Your task to perform on an android device: toggle location history Image 0: 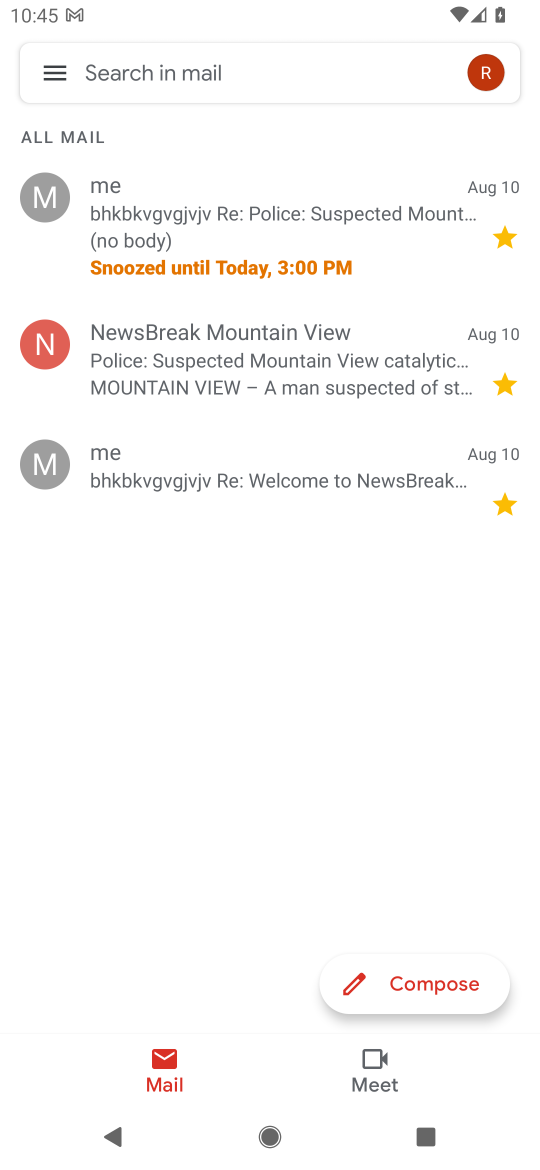
Step 0: press home button
Your task to perform on an android device: toggle location history Image 1: 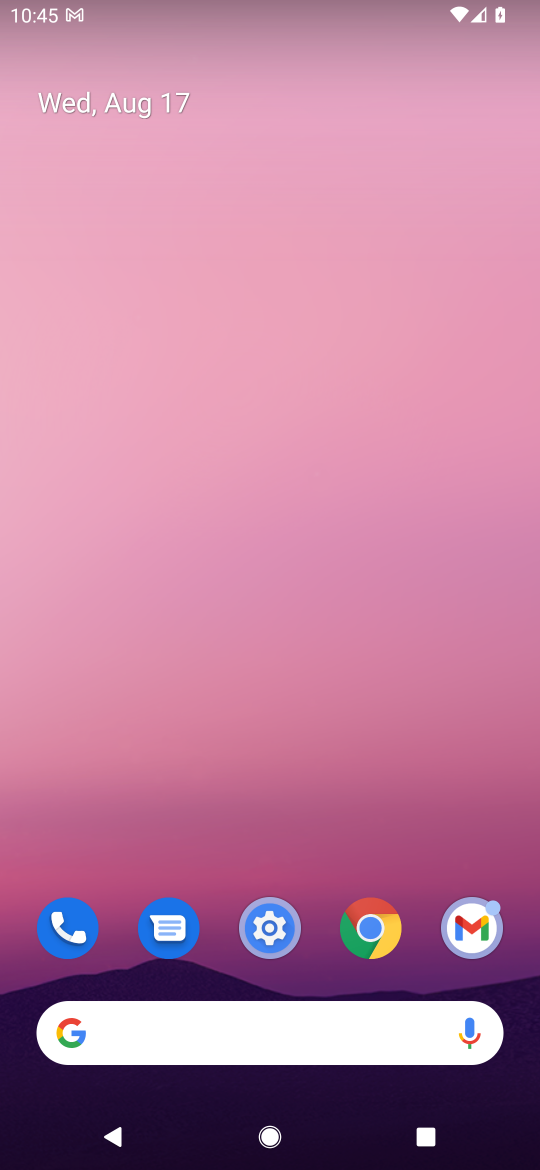
Step 1: drag from (463, 801) to (329, 195)
Your task to perform on an android device: toggle location history Image 2: 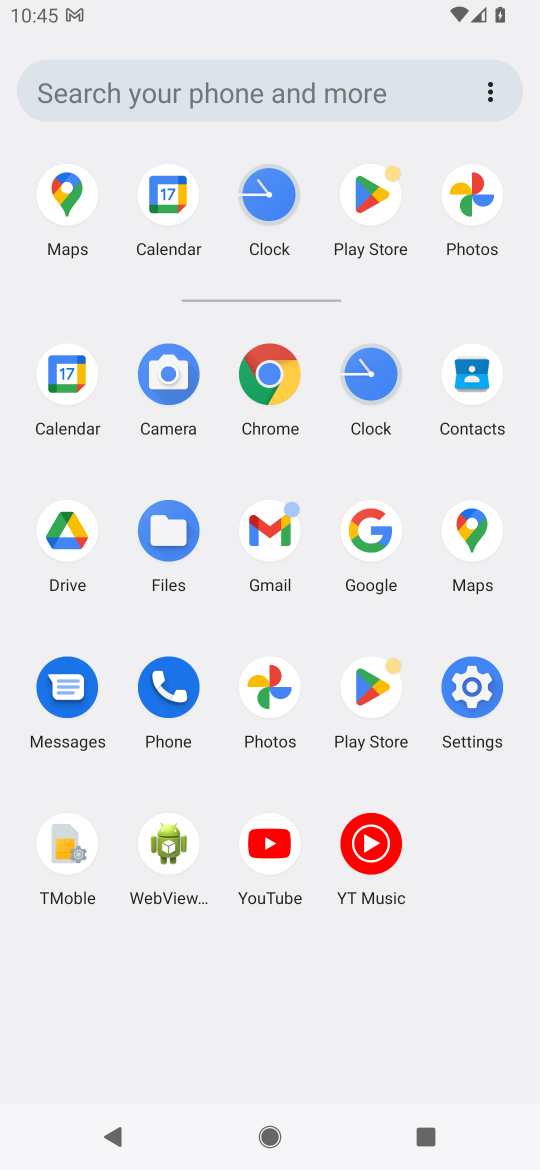
Step 2: click (459, 703)
Your task to perform on an android device: toggle location history Image 3: 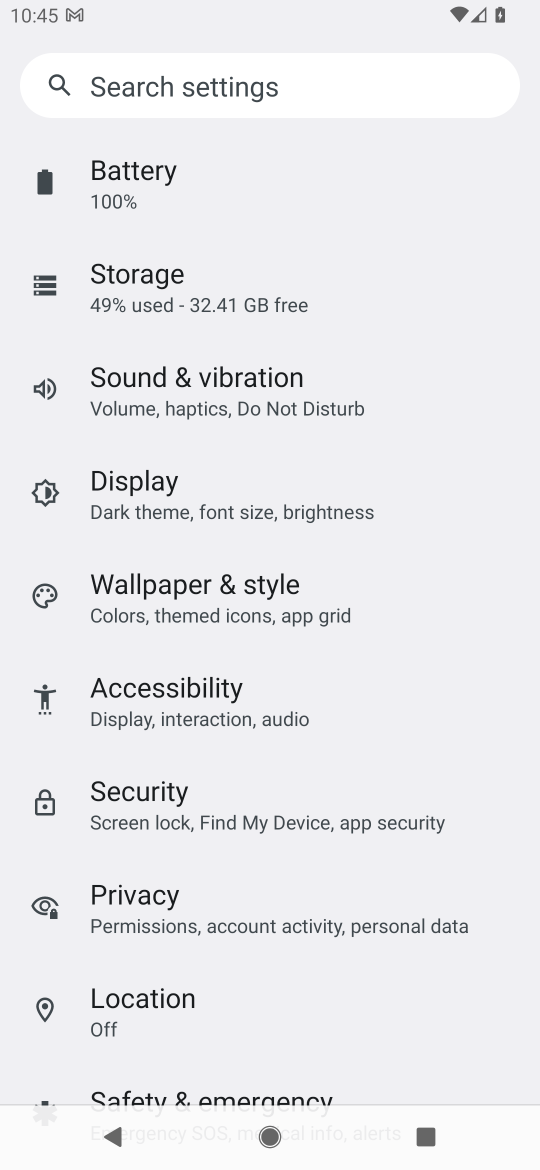
Step 3: click (280, 1001)
Your task to perform on an android device: toggle location history Image 4: 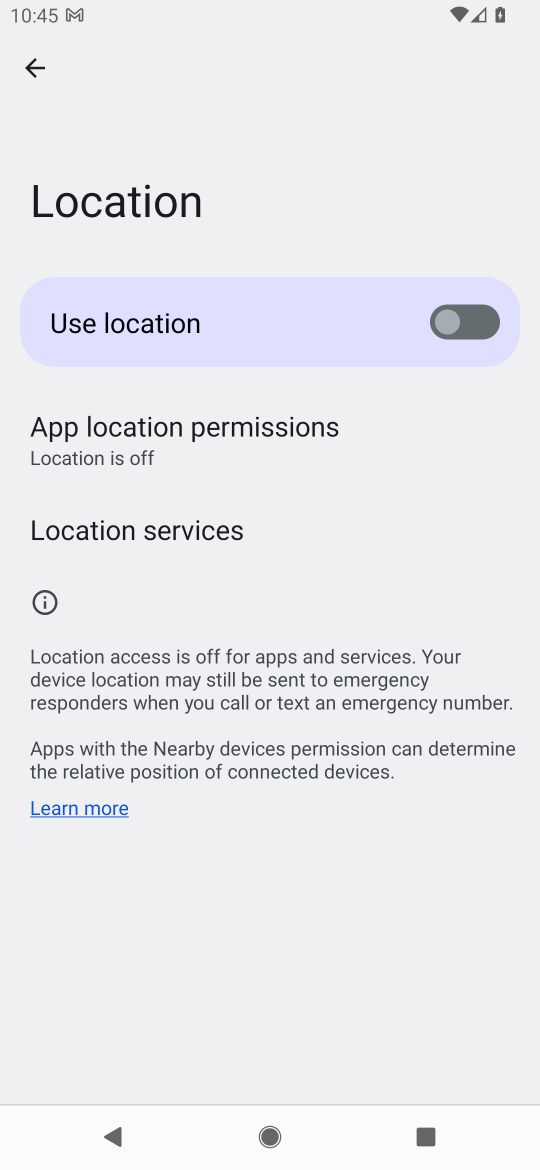
Step 4: click (198, 546)
Your task to perform on an android device: toggle location history Image 5: 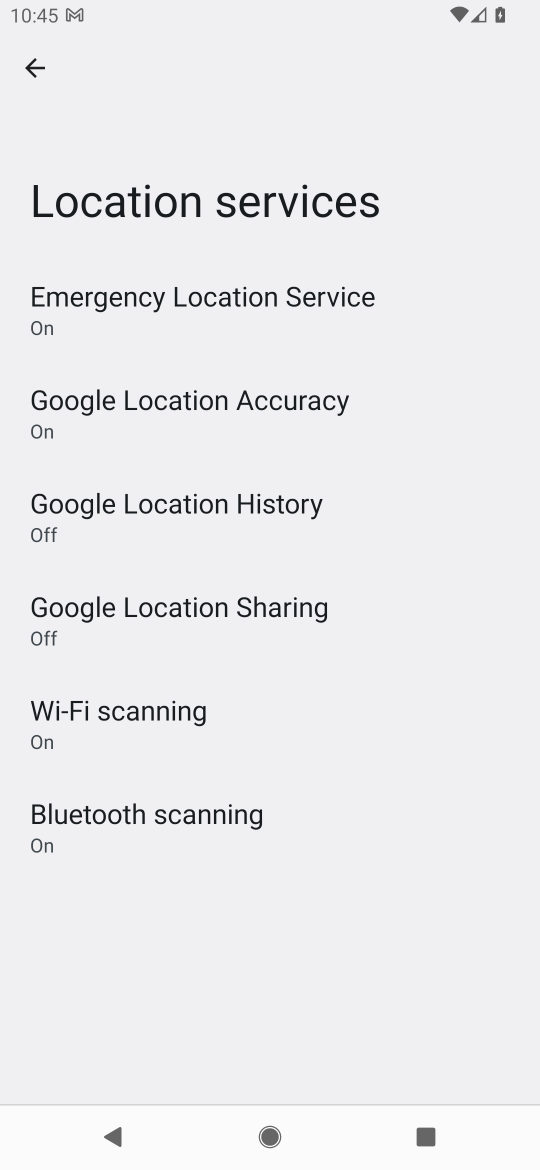
Step 5: click (285, 513)
Your task to perform on an android device: toggle location history Image 6: 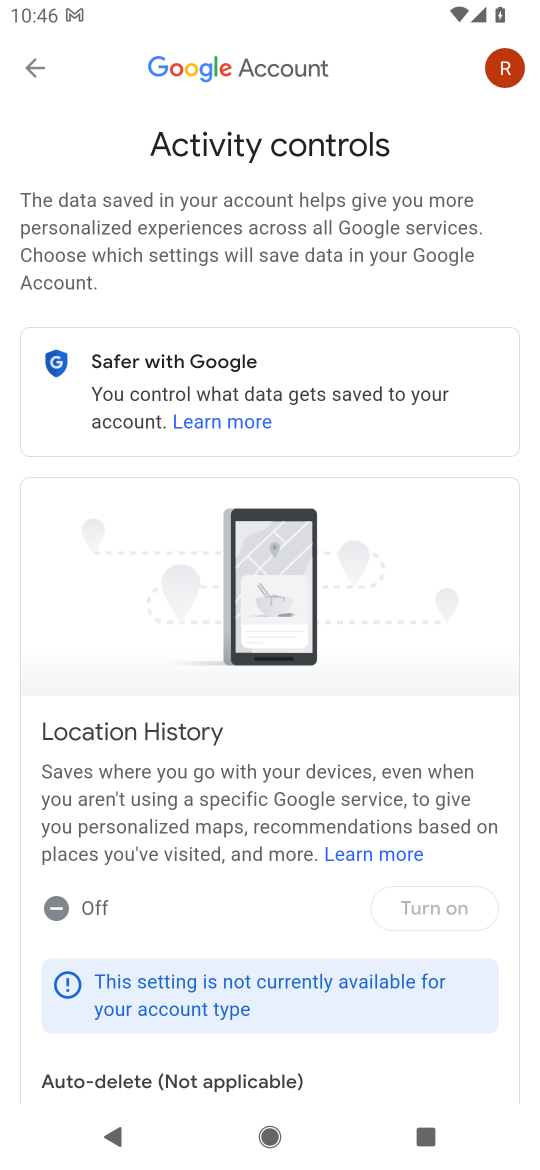
Step 6: click (440, 904)
Your task to perform on an android device: toggle location history Image 7: 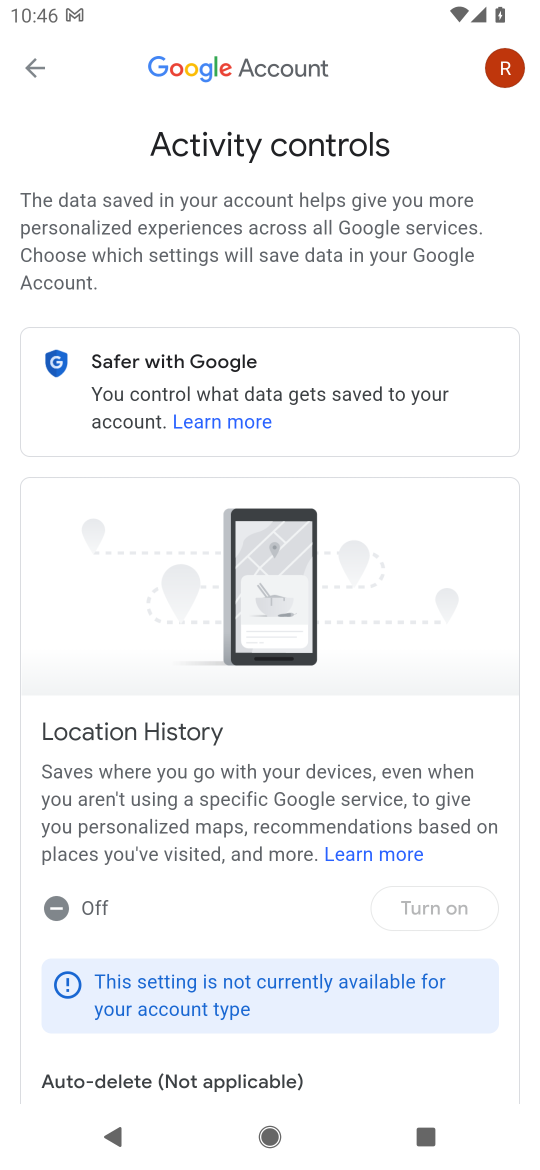
Step 7: task complete